Your task to perform on an android device: toggle wifi Image 0: 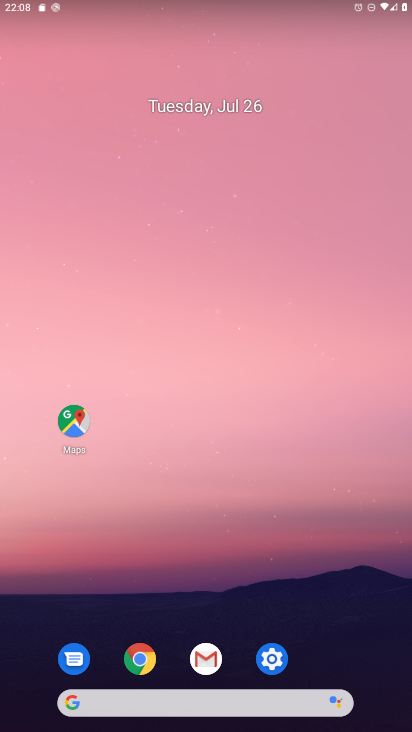
Step 0: click (272, 652)
Your task to perform on an android device: toggle wifi Image 1: 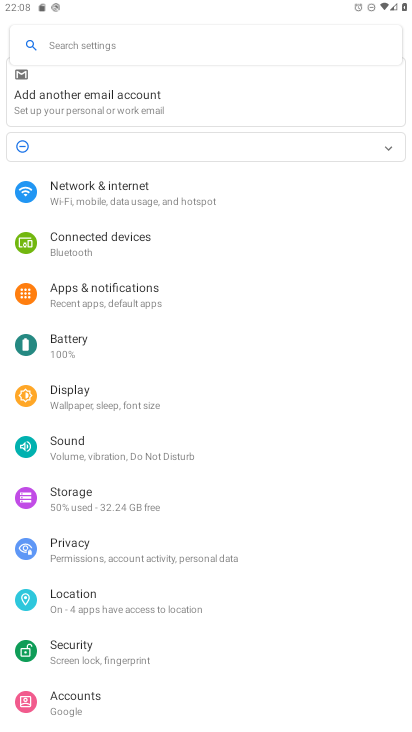
Step 1: click (141, 193)
Your task to perform on an android device: toggle wifi Image 2: 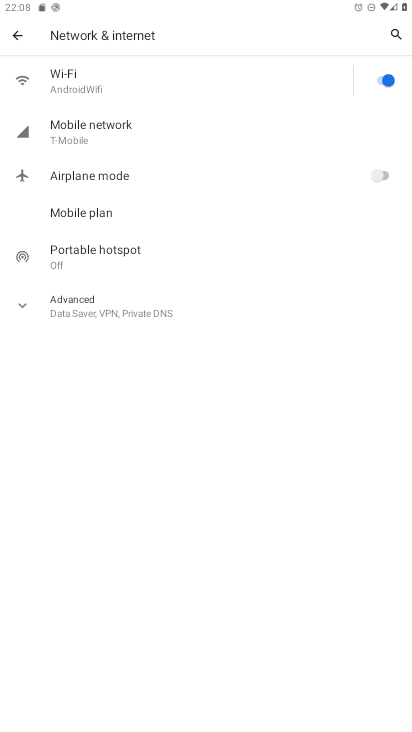
Step 2: click (93, 76)
Your task to perform on an android device: toggle wifi Image 3: 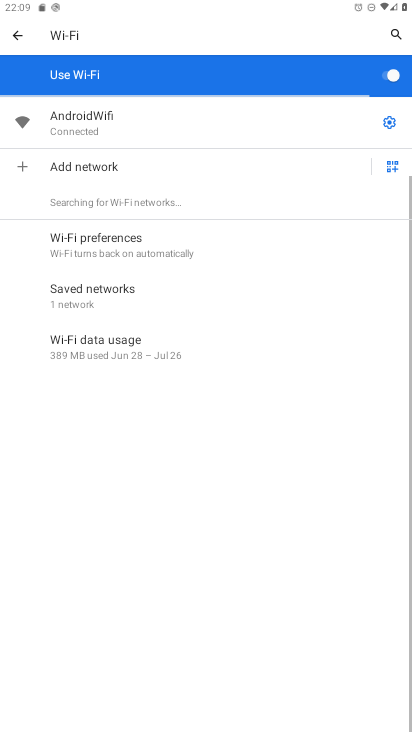
Step 3: task complete